Your task to perform on an android device: change notifications settings Image 0: 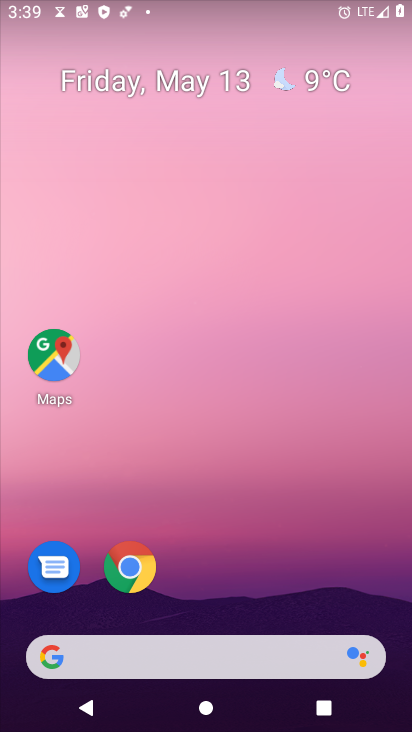
Step 0: drag from (324, 610) to (363, 4)
Your task to perform on an android device: change notifications settings Image 1: 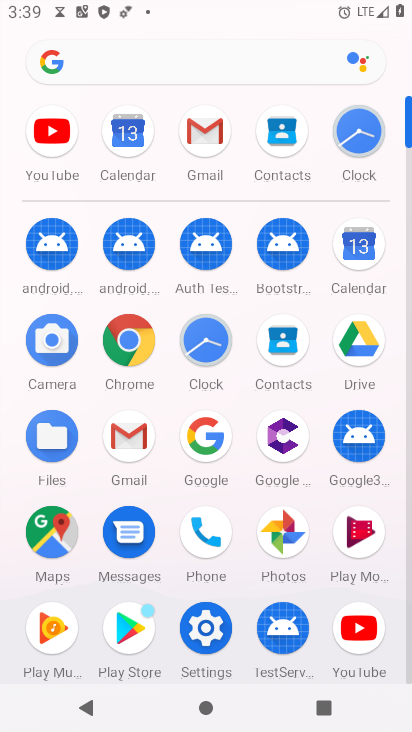
Step 1: click (201, 625)
Your task to perform on an android device: change notifications settings Image 2: 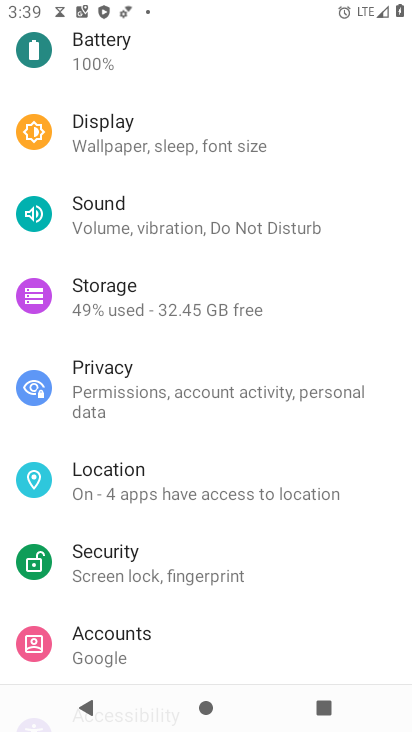
Step 2: drag from (322, 219) to (337, 438)
Your task to perform on an android device: change notifications settings Image 3: 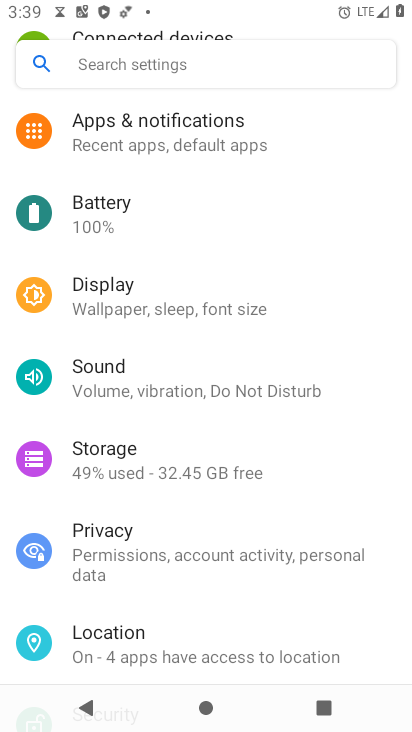
Step 3: click (188, 145)
Your task to perform on an android device: change notifications settings Image 4: 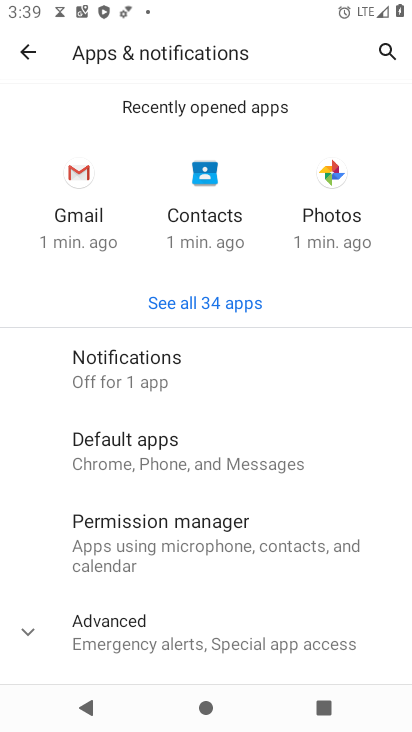
Step 4: click (117, 376)
Your task to perform on an android device: change notifications settings Image 5: 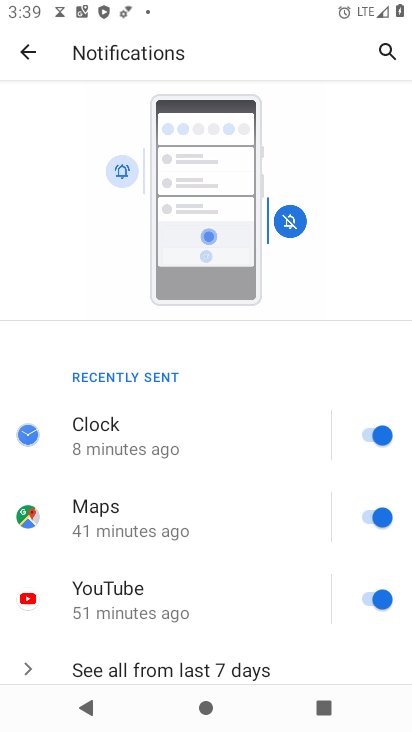
Step 5: drag from (206, 569) to (175, 187)
Your task to perform on an android device: change notifications settings Image 6: 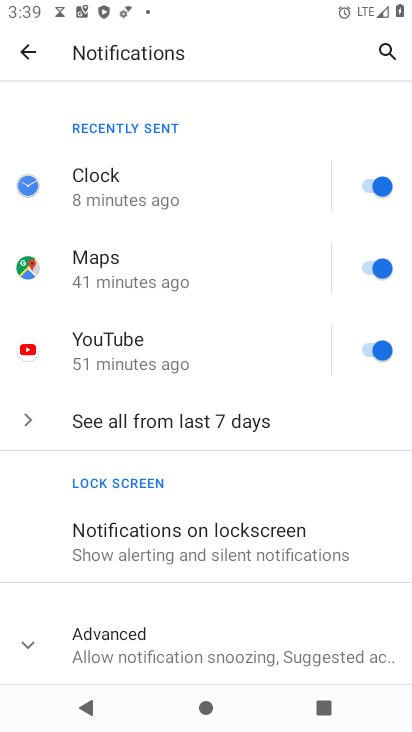
Step 6: click (158, 428)
Your task to perform on an android device: change notifications settings Image 7: 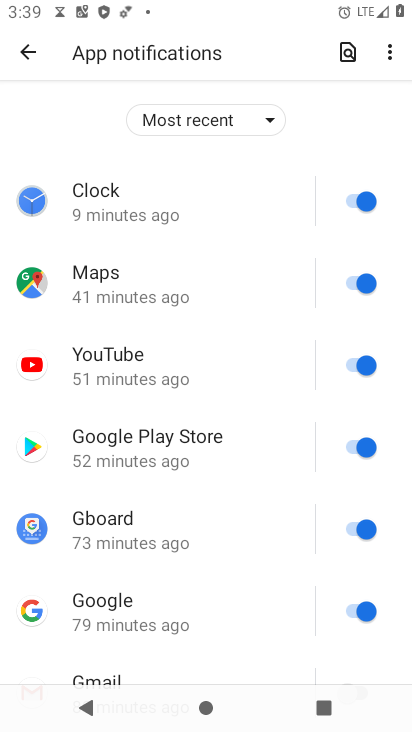
Step 7: click (274, 127)
Your task to perform on an android device: change notifications settings Image 8: 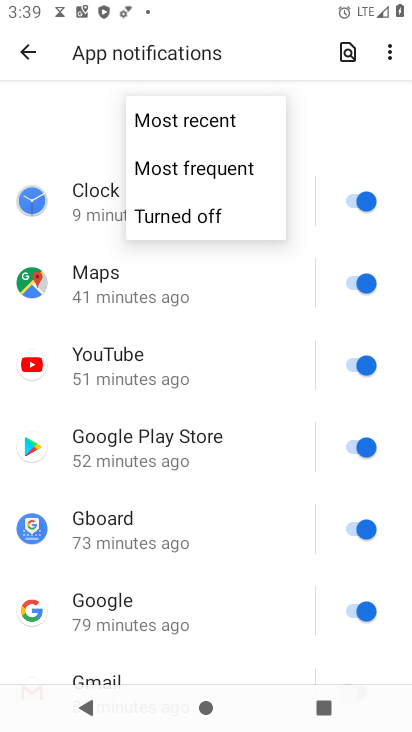
Step 8: click (180, 178)
Your task to perform on an android device: change notifications settings Image 9: 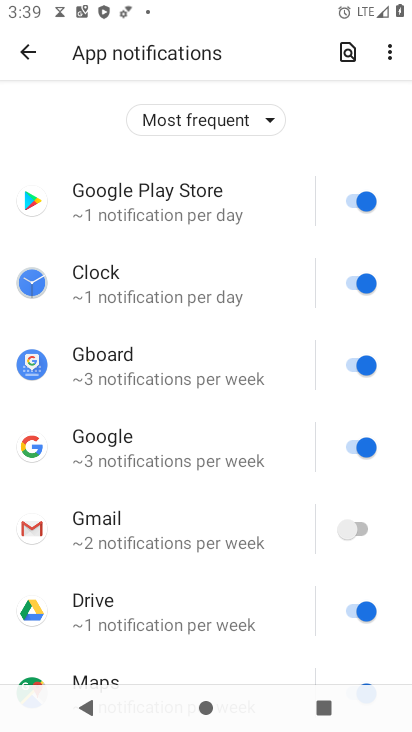
Step 9: task complete